Your task to perform on an android device: Open settings Image 0: 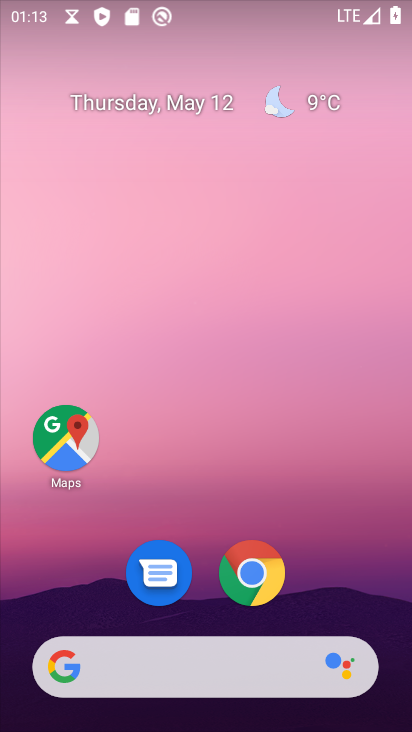
Step 0: drag from (371, 574) to (332, 133)
Your task to perform on an android device: Open settings Image 1: 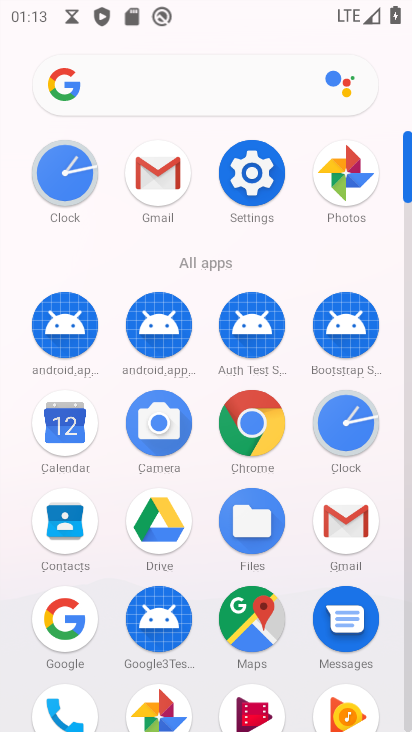
Step 1: click (237, 186)
Your task to perform on an android device: Open settings Image 2: 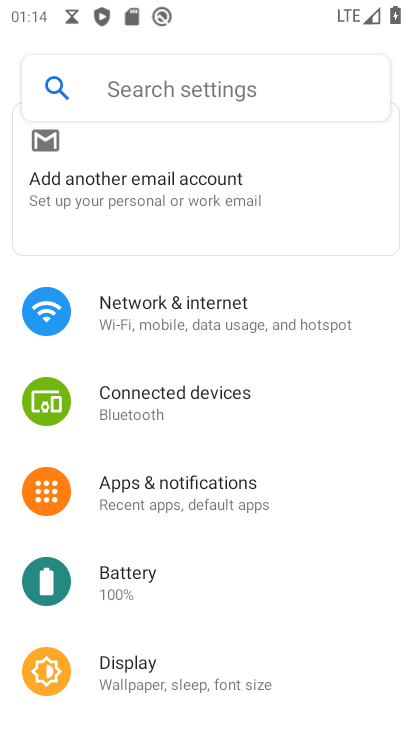
Step 2: task complete